Your task to perform on an android device: check battery use Image 0: 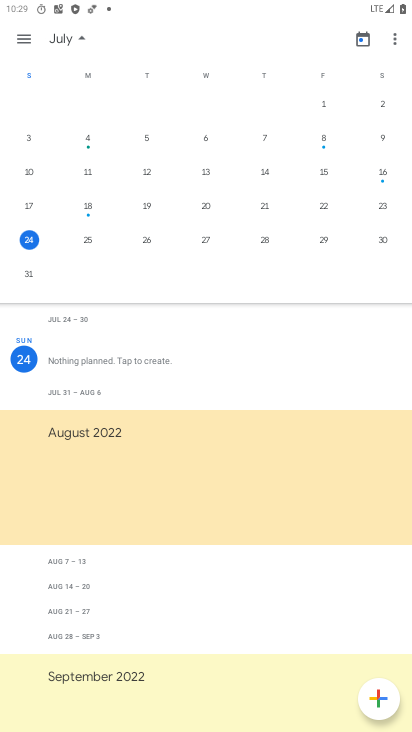
Step 0: press home button
Your task to perform on an android device: check battery use Image 1: 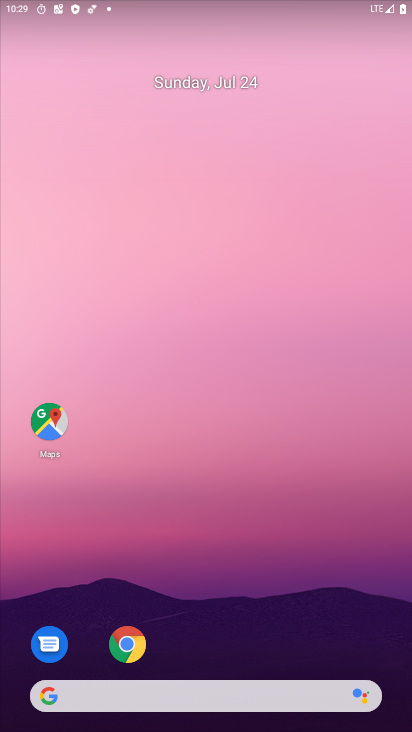
Step 1: drag from (234, 685) to (252, 215)
Your task to perform on an android device: check battery use Image 2: 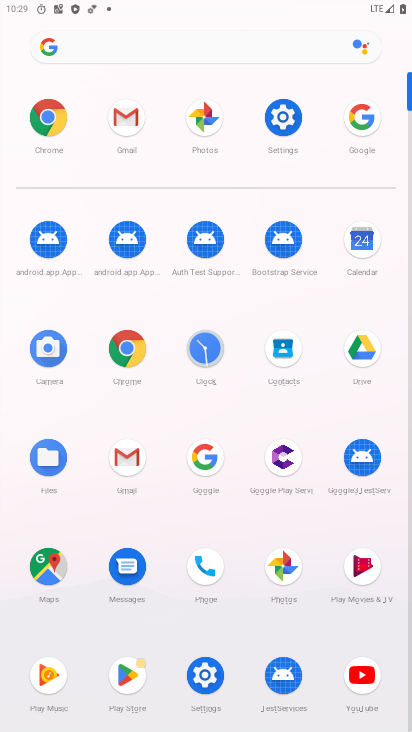
Step 2: click (272, 114)
Your task to perform on an android device: check battery use Image 3: 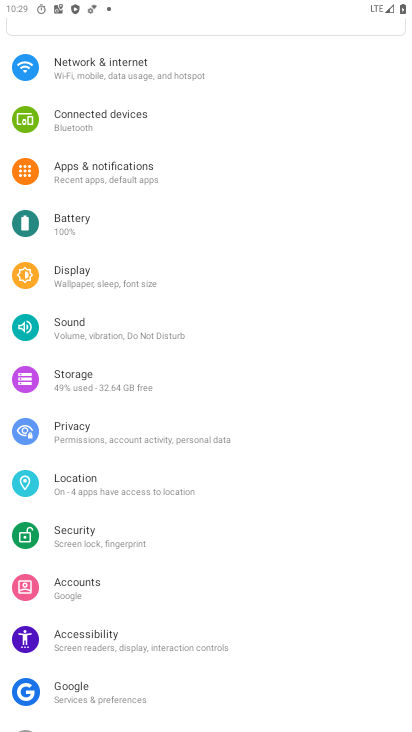
Step 3: click (84, 229)
Your task to perform on an android device: check battery use Image 4: 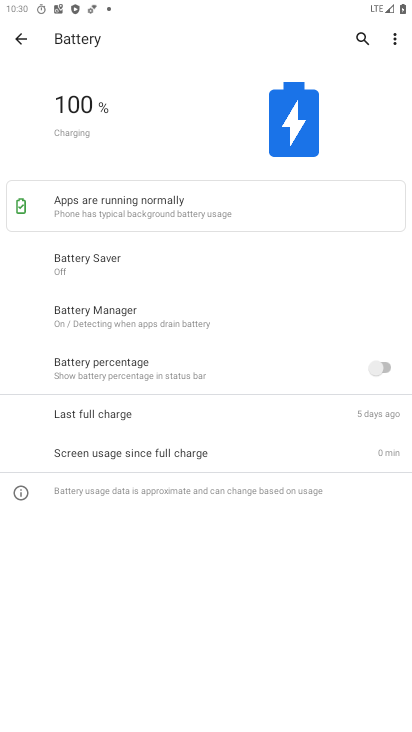
Step 4: click (392, 40)
Your task to perform on an android device: check battery use Image 5: 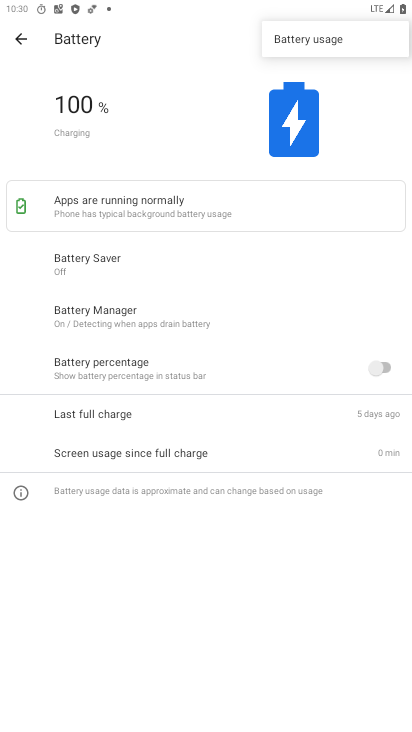
Step 5: click (342, 40)
Your task to perform on an android device: check battery use Image 6: 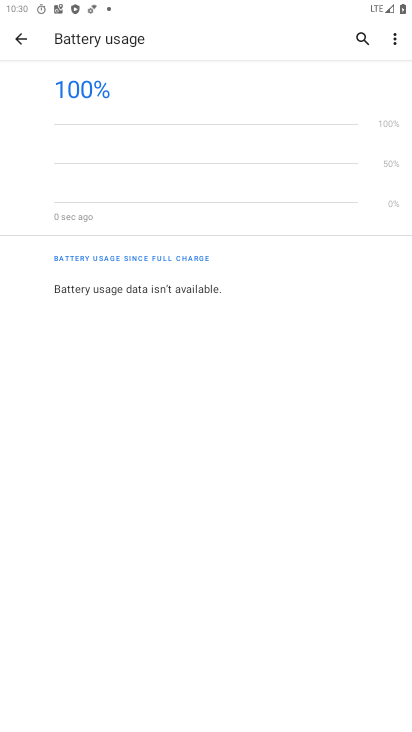
Step 6: task complete